Your task to perform on an android device: What is the recent news? Image 0: 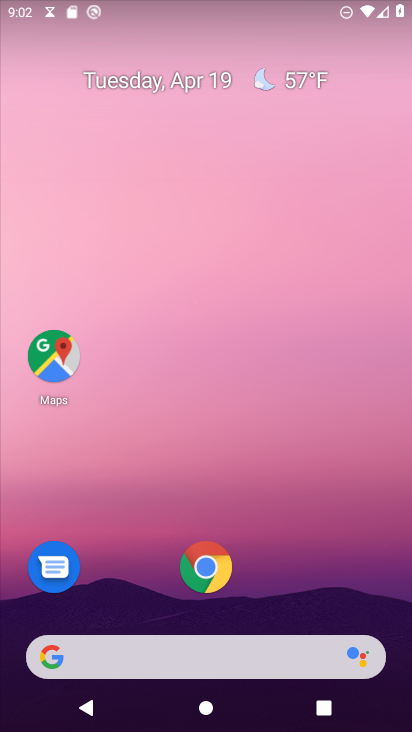
Step 0: drag from (351, 572) to (281, 19)
Your task to perform on an android device: What is the recent news? Image 1: 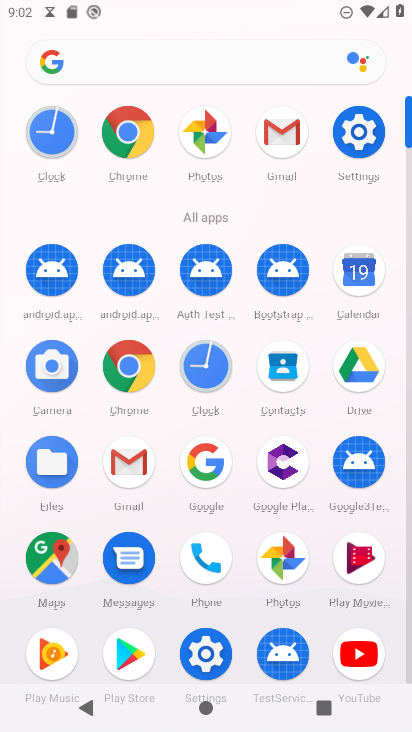
Step 1: click (126, 128)
Your task to perform on an android device: What is the recent news? Image 2: 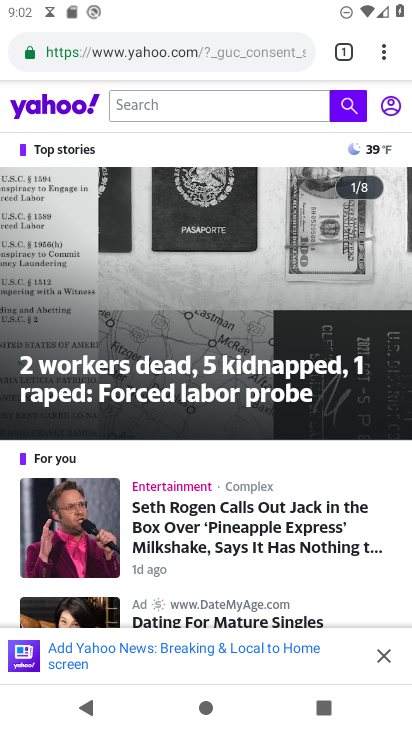
Step 2: click (388, 46)
Your task to perform on an android device: What is the recent news? Image 3: 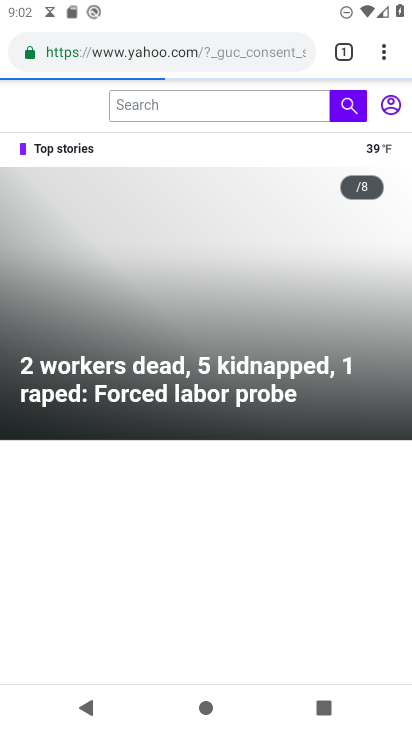
Step 3: task complete